Your task to perform on an android device: Set the phone to "Do not disturb". Image 0: 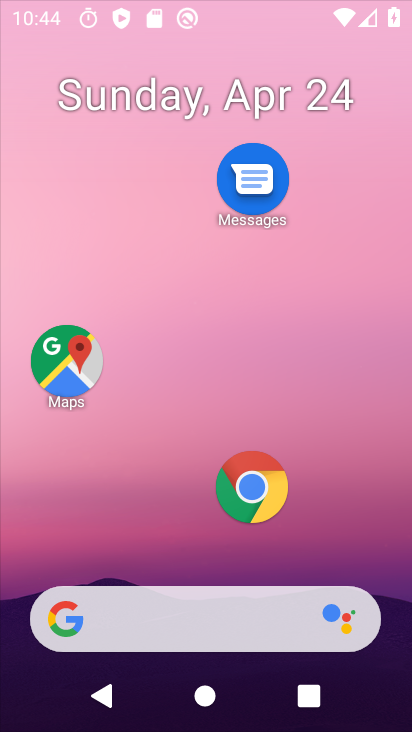
Step 0: drag from (202, 459) to (288, 3)
Your task to perform on an android device: Set the phone to "Do not disturb". Image 1: 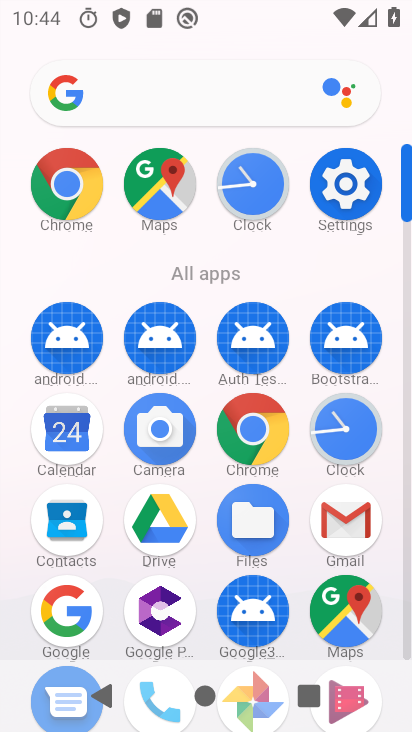
Step 1: click (349, 212)
Your task to perform on an android device: Set the phone to "Do not disturb". Image 2: 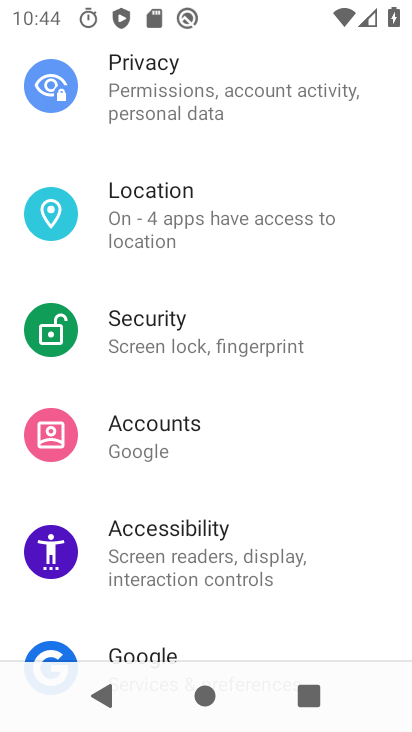
Step 2: drag from (231, 262) to (206, 630)
Your task to perform on an android device: Set the phone to "Do not disturb". Image 3: 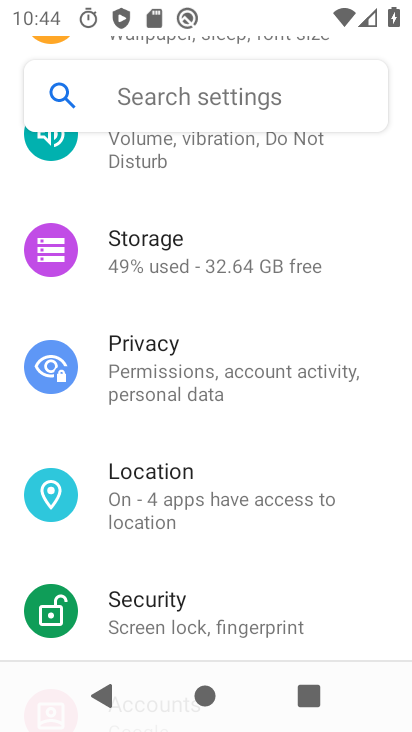
Step 3: drag from (175, 227) to (165, 701)
Your task to perform on an android device: Set the phone to "Do not disturb". Image 4: 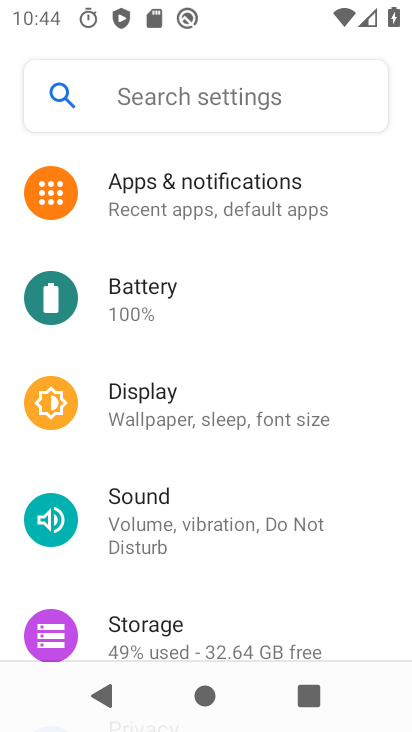
Step 4: click (157, 534)
Your task to perform on an android device: Set the phone to "Do not disturb". Image 5: 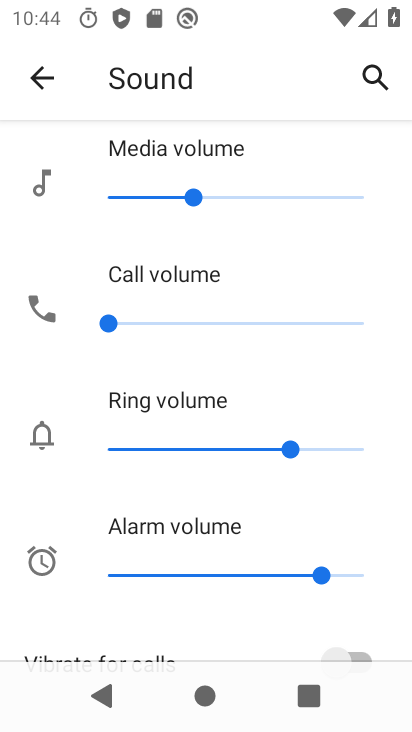
Step 5: drag from (171, 515) to (219, 98)
Your task to perform on an android device: Set the phone to "Do not disturb". Image 6: 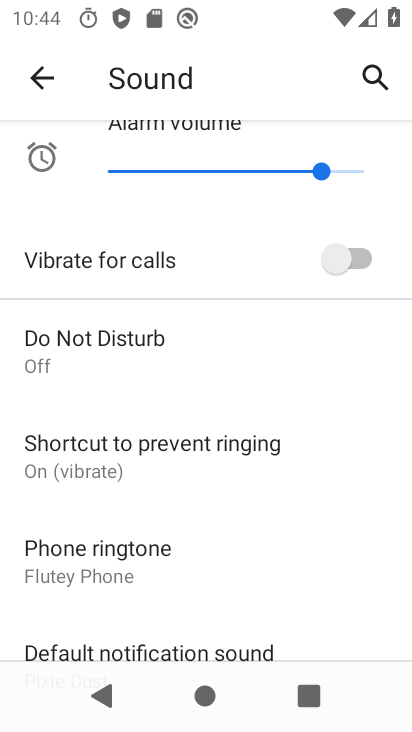
Step 6: click (106, 351)
Your task to perform on an android device: Set the phone to "Do not disturb". Image 7: 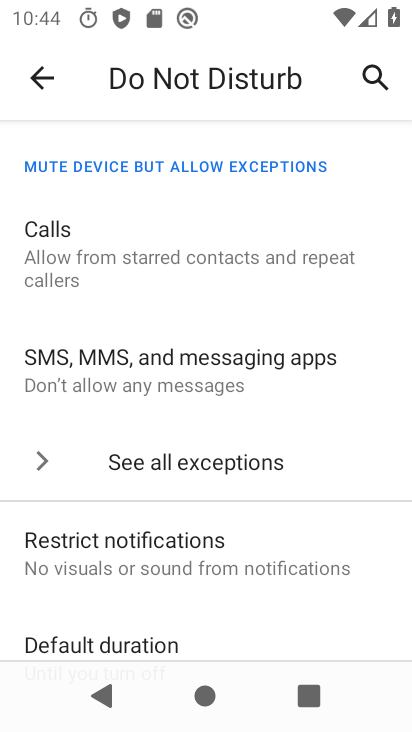
Step 7: drag from (128, 531) to (231, 74)
Your task to perform on an android device: Set the phone to "Do not disturb". Image 8: 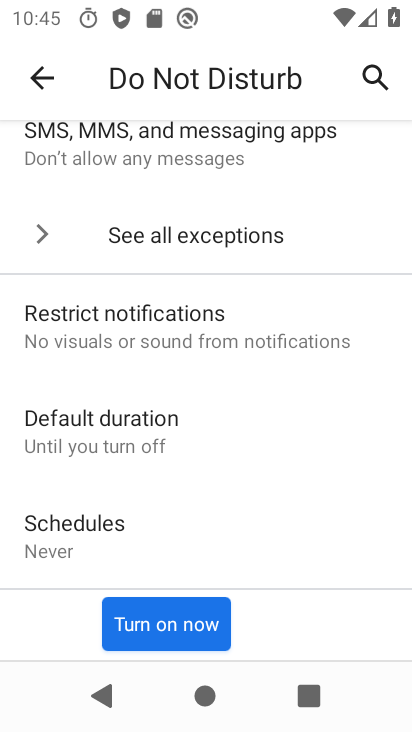
Step 8: click (151, 616)
Your task to perform on an android device: Set the phone to "Do not disturb". Image 9: 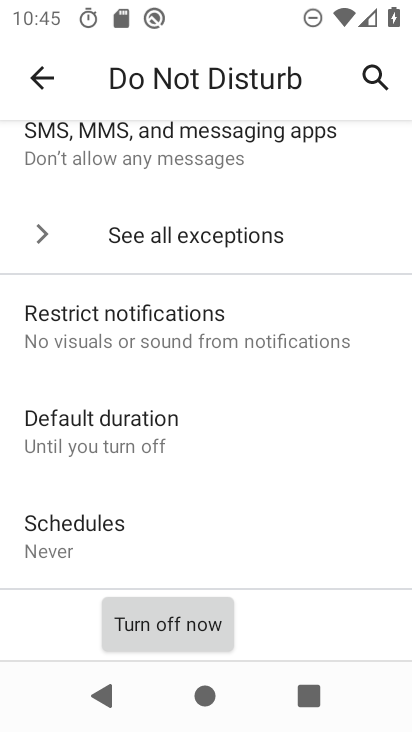
Step 9: task complete